Your task to perform on an android device: Go to Android settings Image 0: 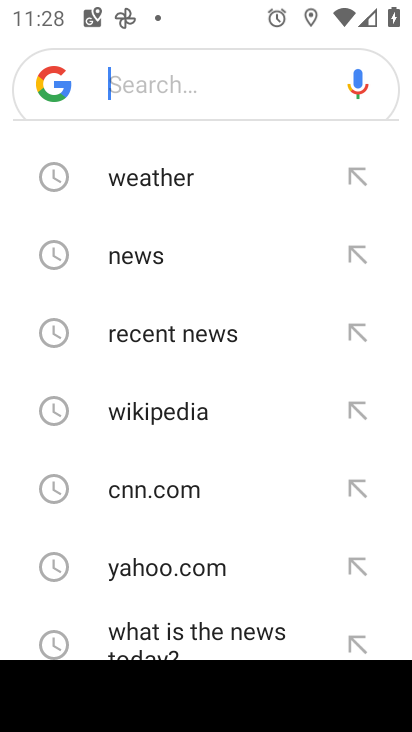
Step 0: press home button
Your task to perform on an android device: Go to Android settings Image 1: 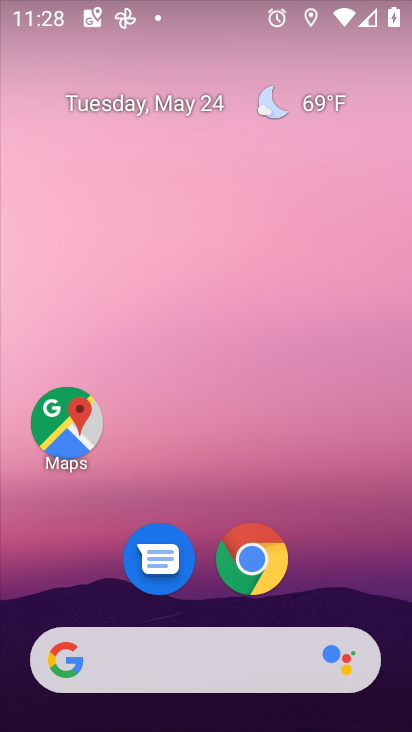
Step 1: click (373, 530)
Your task to perform on an android device: Go to Android settings Image 2: 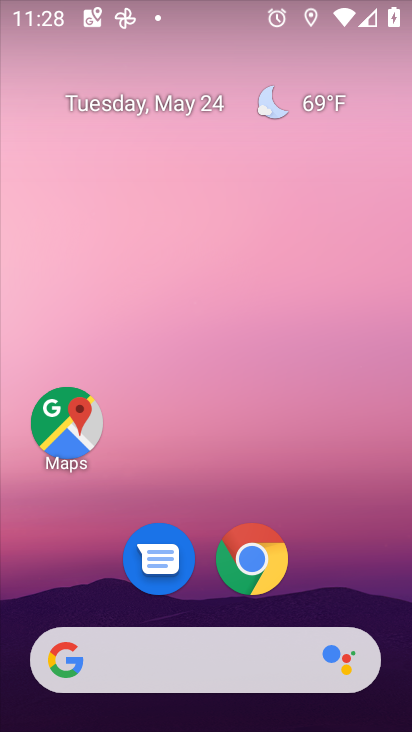
Step 2: drag from (389, 648) to (335, 108)
Your task to perform on an android device: Go to Android settings Image 3: 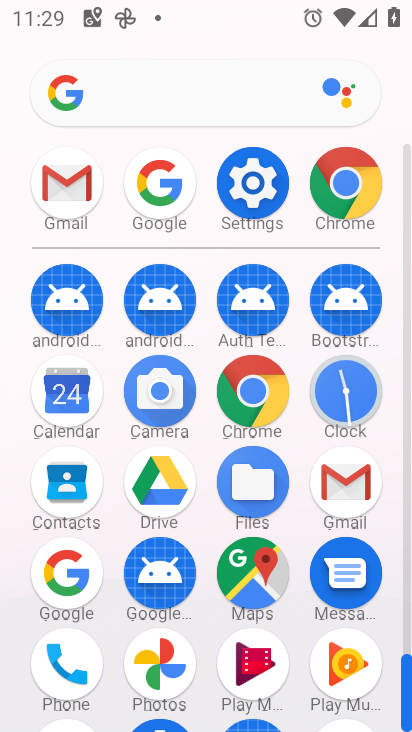
Step 3: click (230, 191)
Your task to perform on an android device: Go to Android settings Image 4: 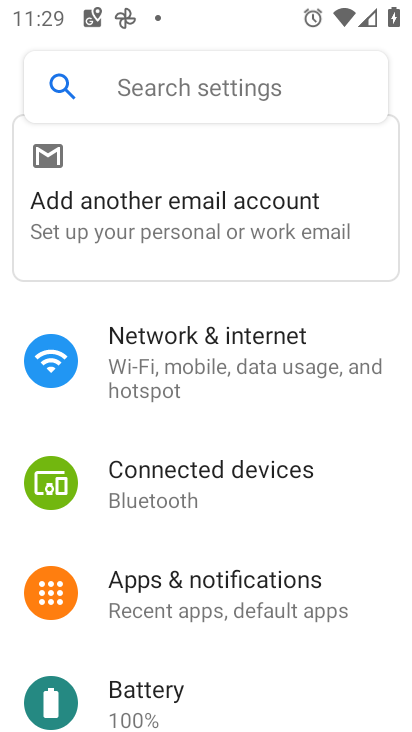
Step 4: drag from (236, 667) to (280, 6)
Your task to perform on an android device: Go to Android settings Image 5: 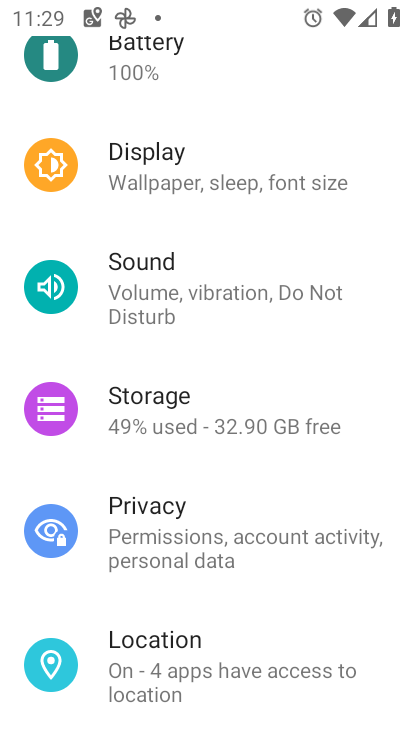
Step 5: drag from (208, 635) to (287, 0)
Your task to perform on an android device: Go to Android settings Image 6: 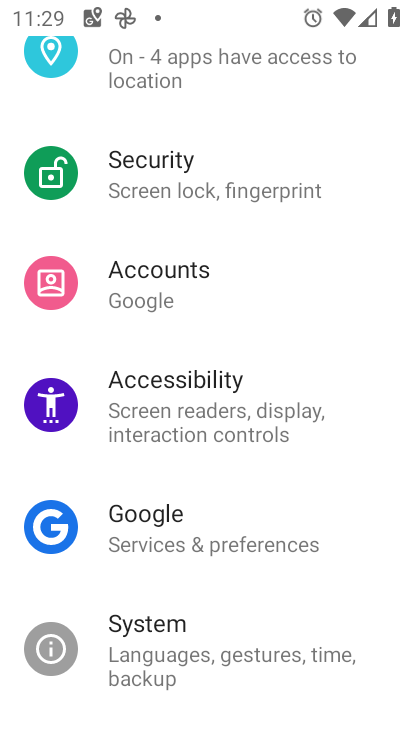
Step 6: drag from (250, 683) to (293, 135)
Your task to perform on an android device: Go to Android settings Image 7: 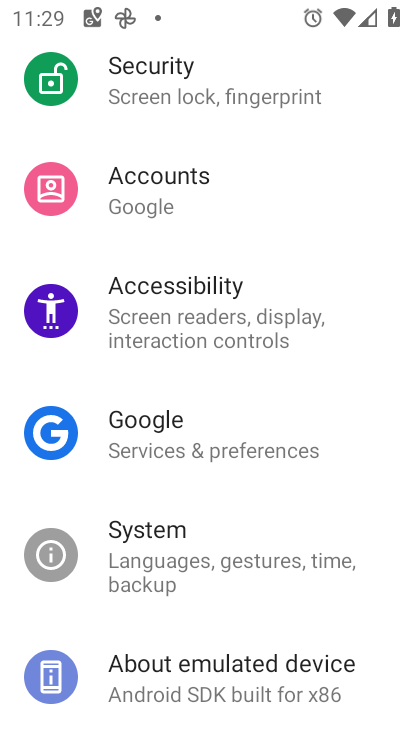
Step 7: click (167, 677)
Your task to perform on an android device: Go to Android settings Image 8: 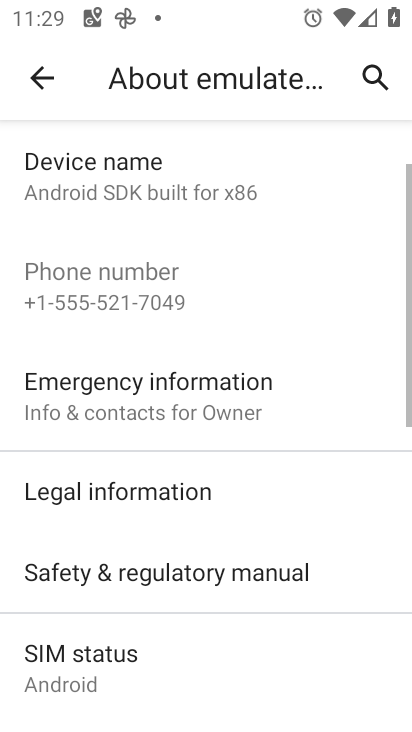
Step 8: drag from (192, 615) to (231, 226)
Your task to perform on an android device: Go to Android settings Image 9: 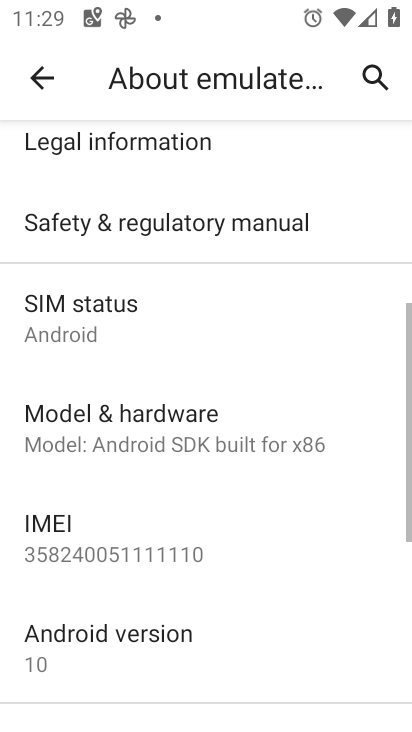
Step 9: click (152, 644)
Your task to perform on an android device: Go to Android settings Image 10: 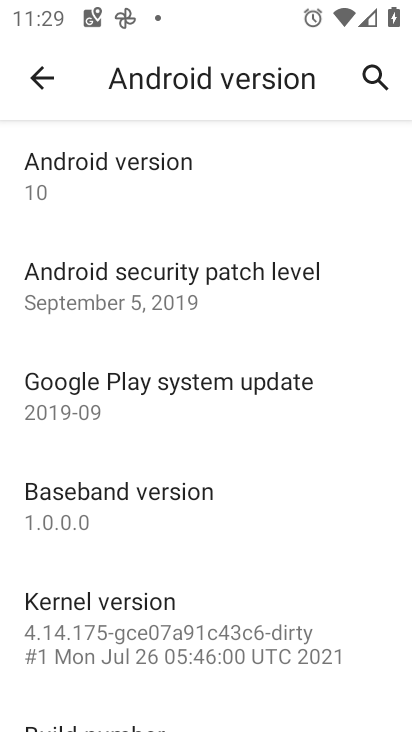
Step 10: task complete